Your task to perform on an android device: Open Google Chrome and open the bookmarks view Image 0: 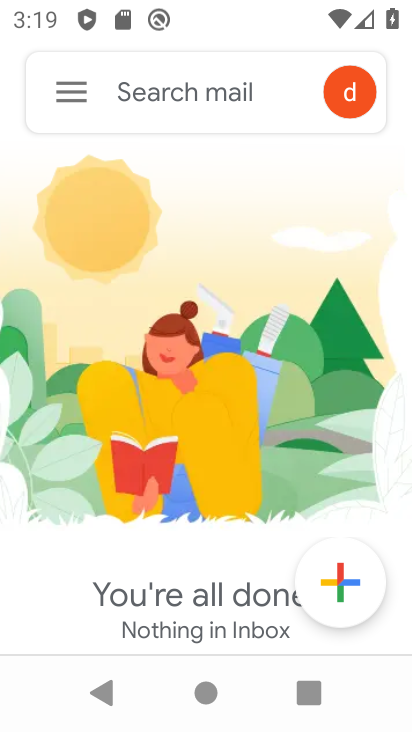
Step 0: press home button
Your task to perform on an android device: Open Google Chrome and open the bookmarks view Image 1: 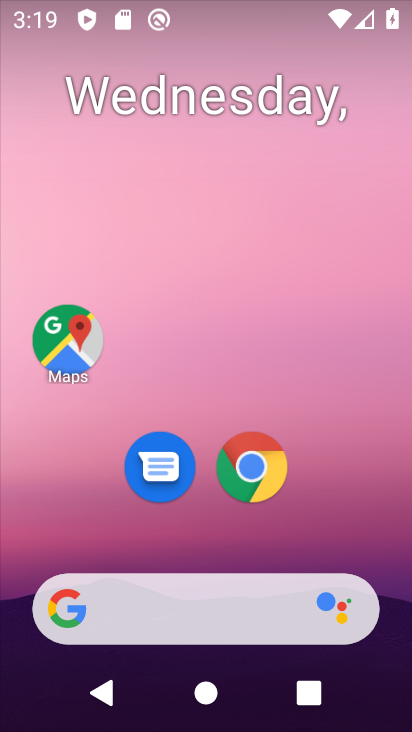
Step 1: drag from (343, 456) to (313, 703)
Your task to perform on an android device: Open Google Chrome and open the bookmarks view Image 2: 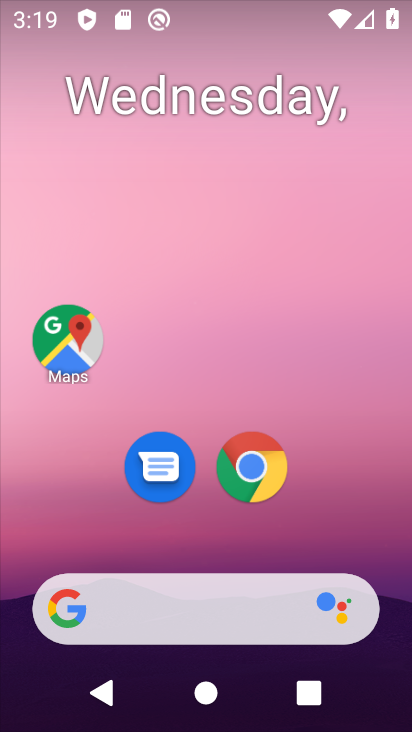
Step 2: click (255, 474)
Your task to perform on an android device: Open Google Chrome and open the bookmarks view Image 3: 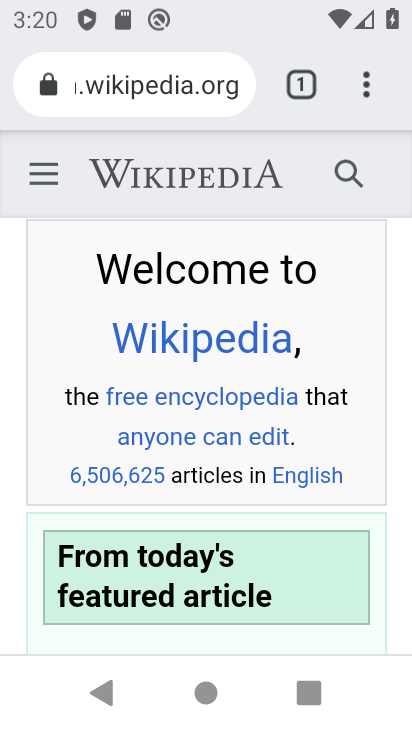
Step 3: click (373, 91)
Your task to perform on an android device: Open Google Chrome and open the bookmarks view Image 4: 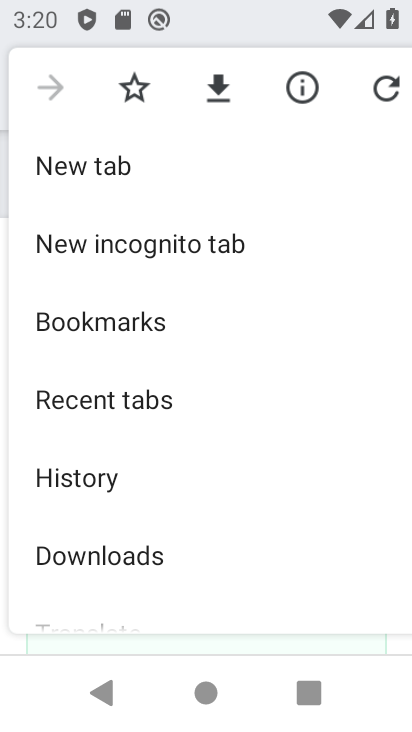
Step 4: click (158, 328)
Your task to perform on an android device: Open Google Chrome and open the bookmarks view Image 5: 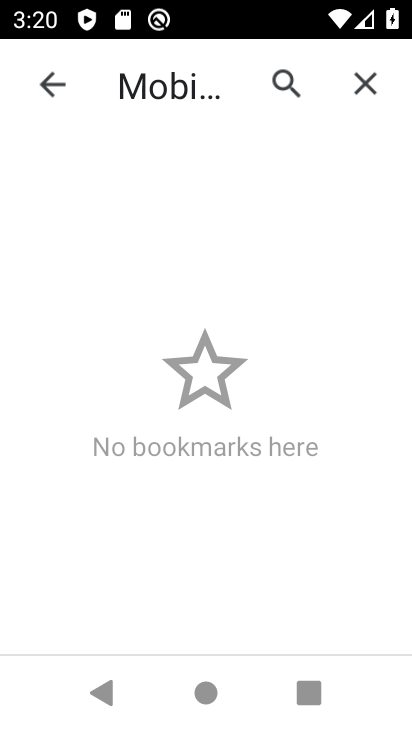
Step 5: task complete